Your task to perform on an android device: clear history in the chrome app Image 0: 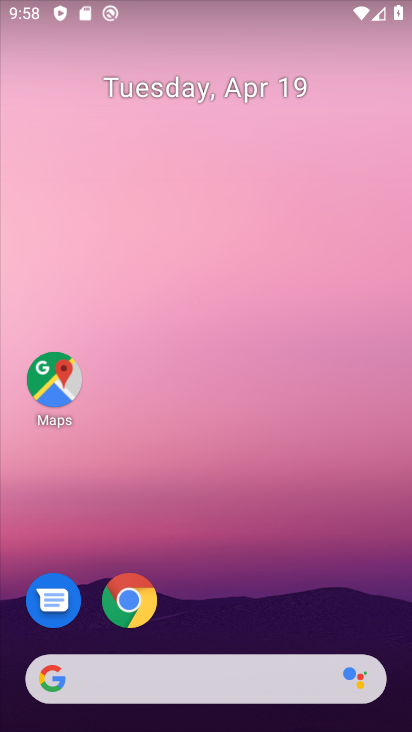
Step 0: click (137, 603)
Your task to perform on an android device: clear history in the chrome app Image 1: 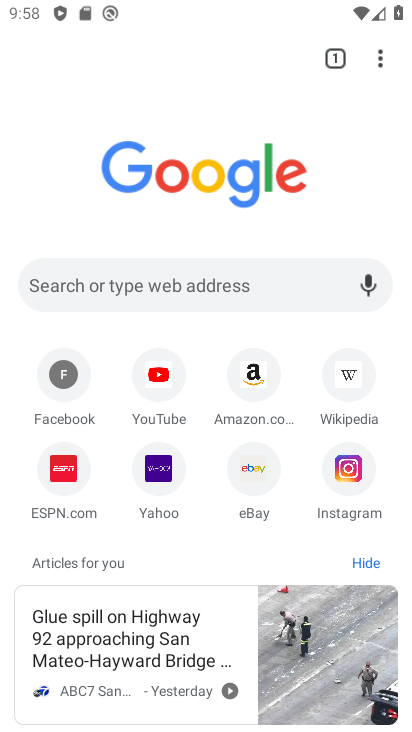
Step 1: click (389, 55)
Your task to perform on an android device: clear history in the chrome app Image 2: 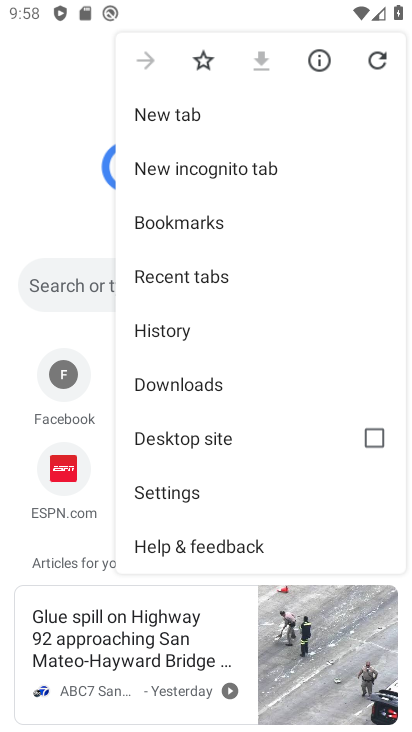
Step 2: click (182, 339)
Your task to perform on an android device: clear history in the chrome app Image 3: 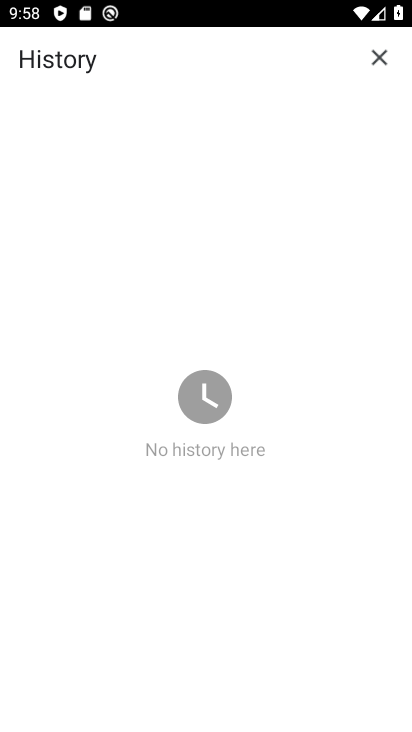
Step 3: task complete